Your task to perform on an android device: Go to settings Image 0: 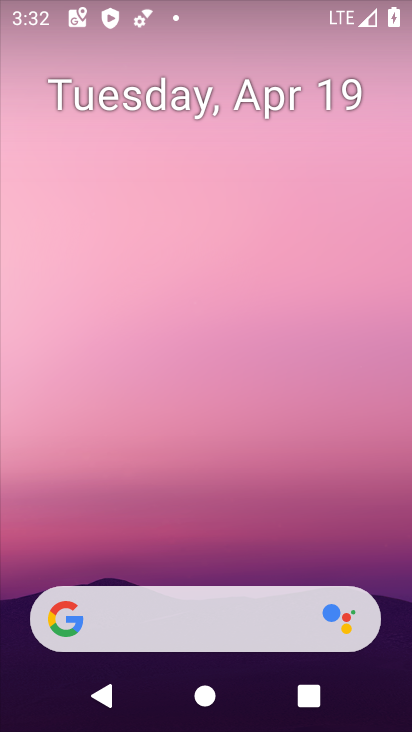
Step 0: drag from (227, 549) to (258, 73)
Your task to perform on an android device: Go to settings Image 1: 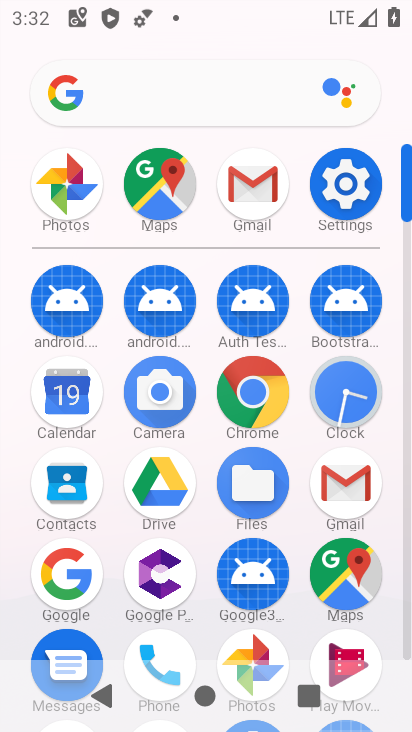
Step 1: click (350, 185)
Your task to perform on an android device: Go to settings Image 2: 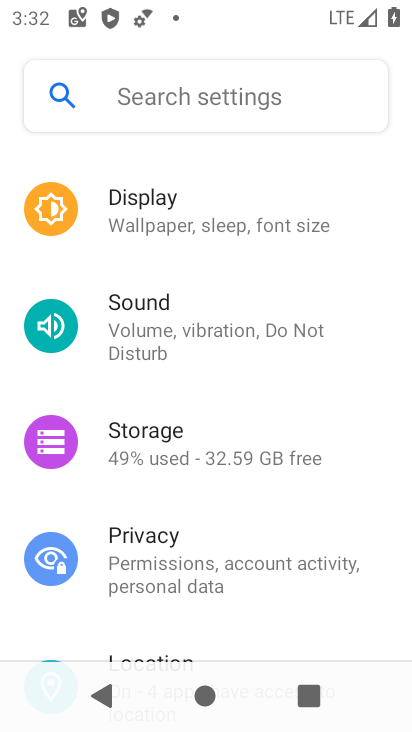
Step 2: task complete